Your task to perform on an android device: Show me productivity apps on the Play Store Image 0: 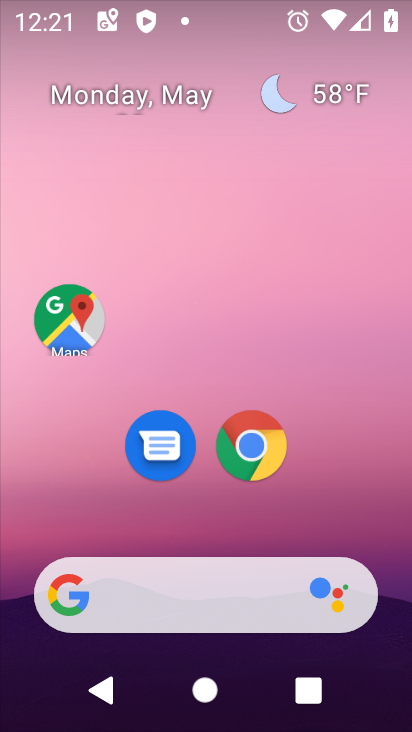
Step 0: drag from (204, 520) to (214, 69)
Your task to perform on an android device: Show me productivity apps on the Play Store Image 1: 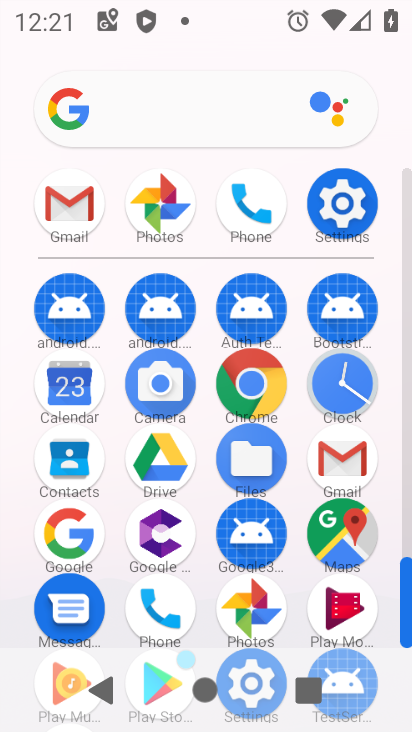
Step 1: drag from (204, 565) to (215, 172)
Your task to perform on an android device: Show me productivity apps on the Play Store Image 2: 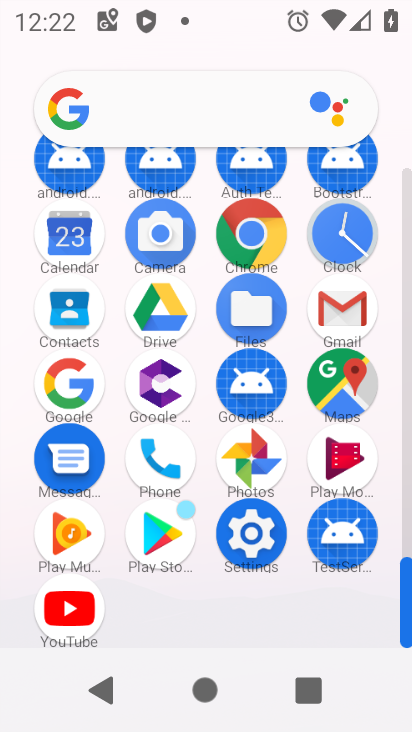
Step 2: click (154, 523)
Your task to perform on an android device: Show me productivity apps on the Play Store Image 3: 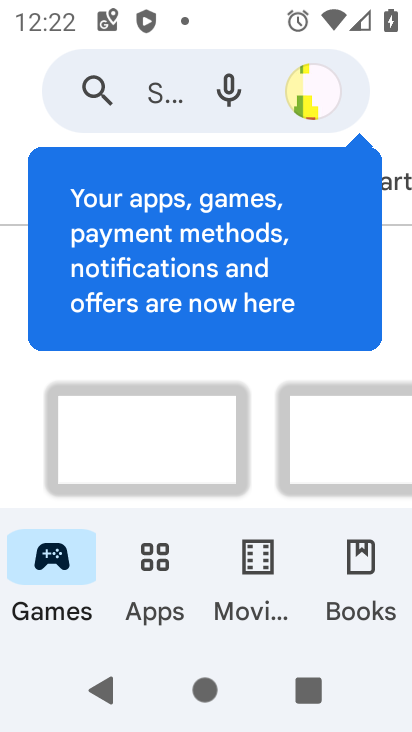
Step 3: click (153, 555)
Your task to perform on an android device: Show me productivity apps on the Play Store Image 4: 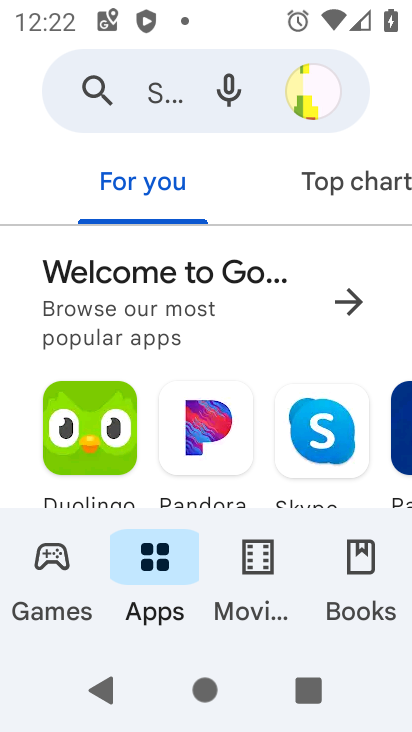
Step 4: drag from (380, 181) to (65, 204)
Your task to perform on an android device: Show me productivity apps on the Play Store Image 5: 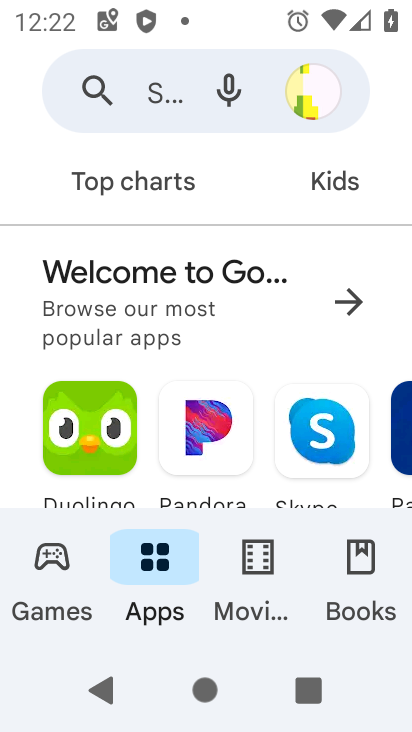
Step 5: drag from (301, 188) to (34, 203)
Your task to perform on an android device: Show me productivity apps on the Play Store Image 6: 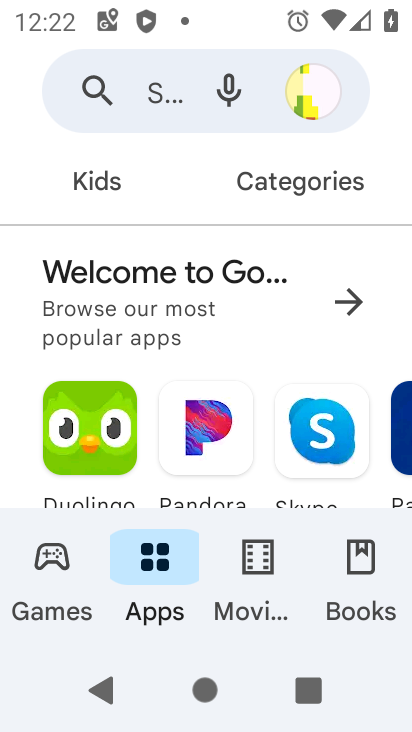
Step 6: click (299, 196)
Your task to perform on an android device: Show me productivity apps on the Play Store Image 7: 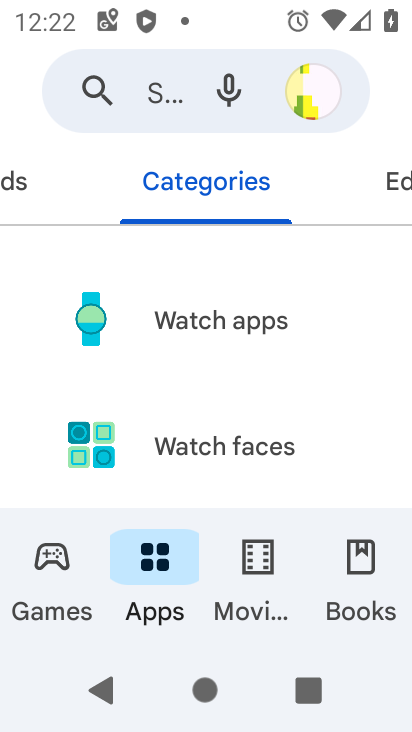
Step 7: drag from (242, 477) to (223, 142)
Your task to perform on an android device: Show me productivity apps on the Play Store Image 8: 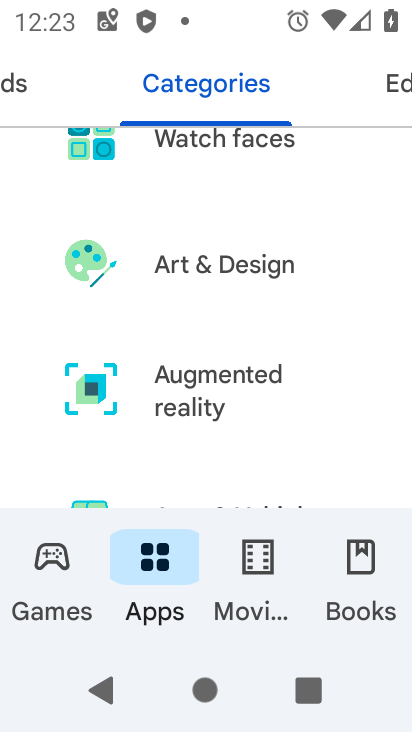
Step 8: drag from (207, 476) to (210, 64)
Your task to perform on an android device: Show me productivity apps on the Play Store Image 9: 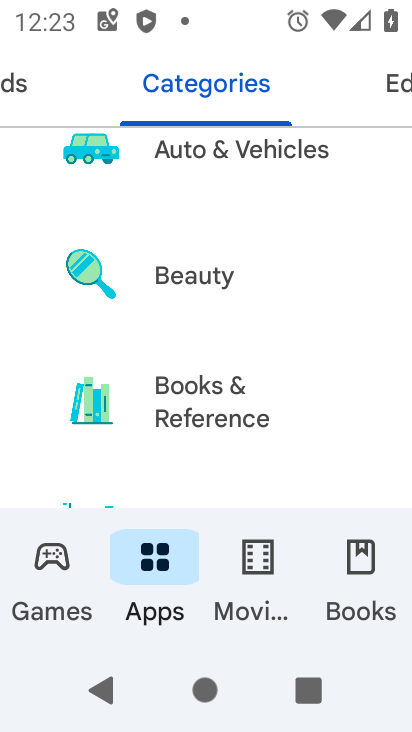
Step 9: drag from (237, 483) to (222, 62)
Your task to perform on an android device: Show me productivity apps on the Play Store Image 10: 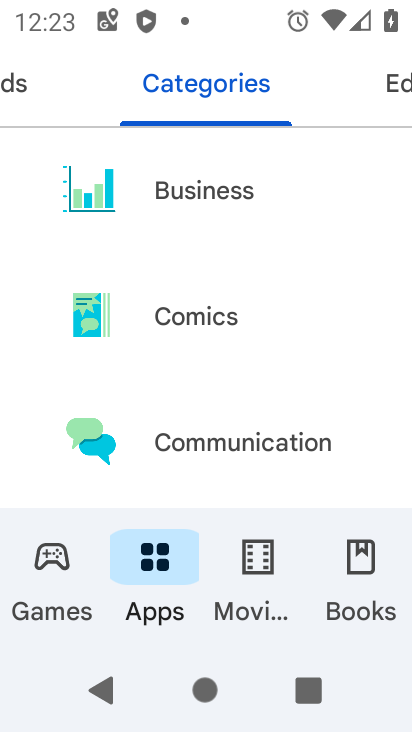
Step 10: drag from (223, 486) to (213, 94)
Your task to perform on an android device: Show me productivity apps on the Play Store Image 11: 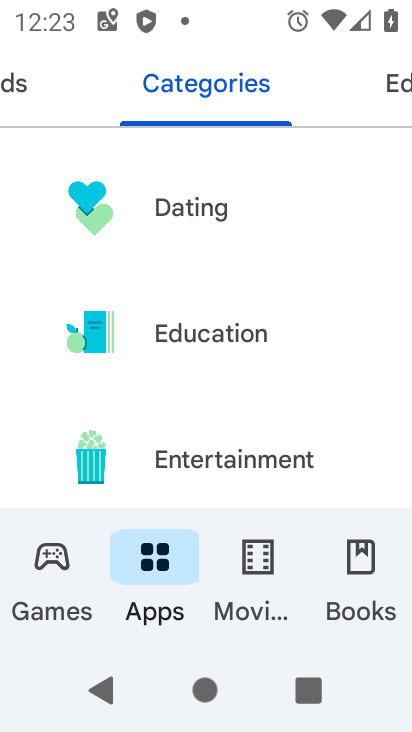
Step 11: drag from (219, 479) to (209, 95)
Your task to perform on an android device: Show me productivity apps on the Play Store Image 12: 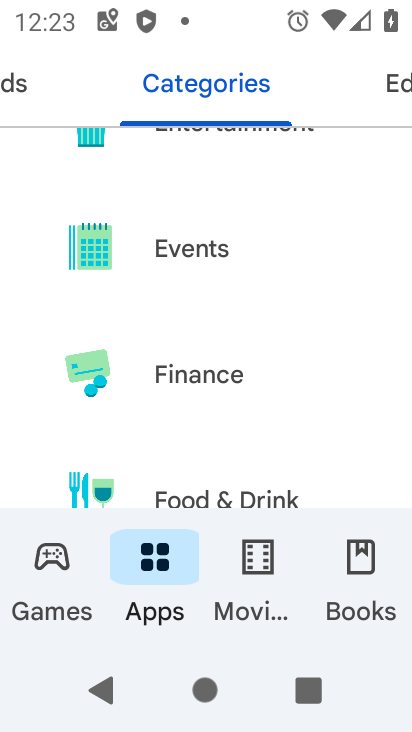
Step 12: drag from (174, 469) to (177, 72)
Your task to perform on an android device: Show me productivity apps on the Play Store Image 13: 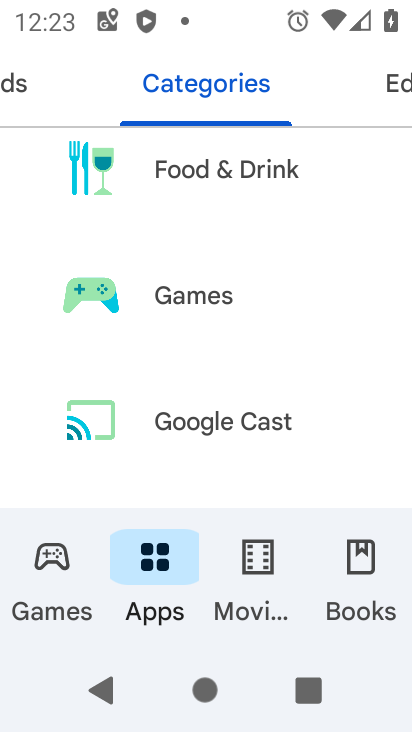
Step 13: drag from (186, 486) to (191, 71)
Your task to perform on an android device: Show me productivity apps on the Play Store Image 14: 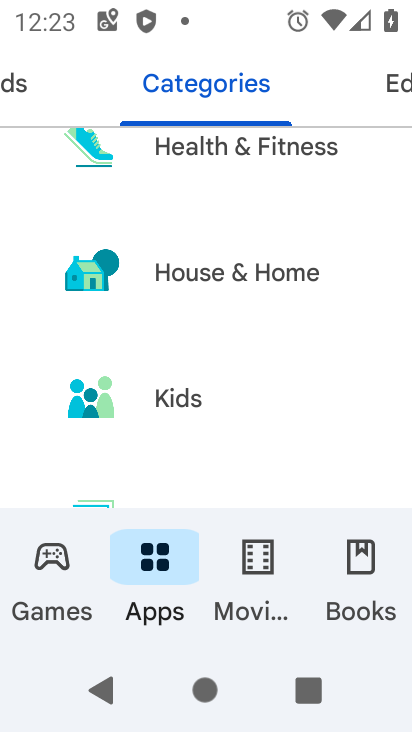
Step 14: drag from (194, 476) to (206, 57)
Your task to perform on an android device: Show me productivity apps on the Play Store Image 15: 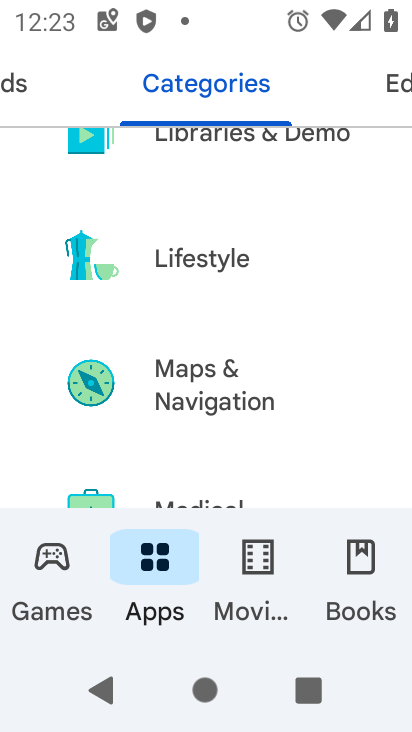
Step 15: drag from (190, 481) to (201, 23)
Your task to perform on an android device: Show me productivity apps on the Play Store Image 16: 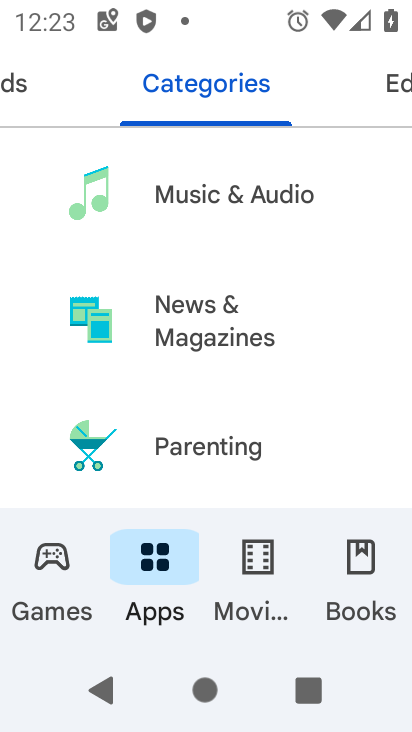
Step 16: drag from (201, 487) to (196, 63)
Your task to perform on an android device: Show me productivity apps on the Play Store Image 17: 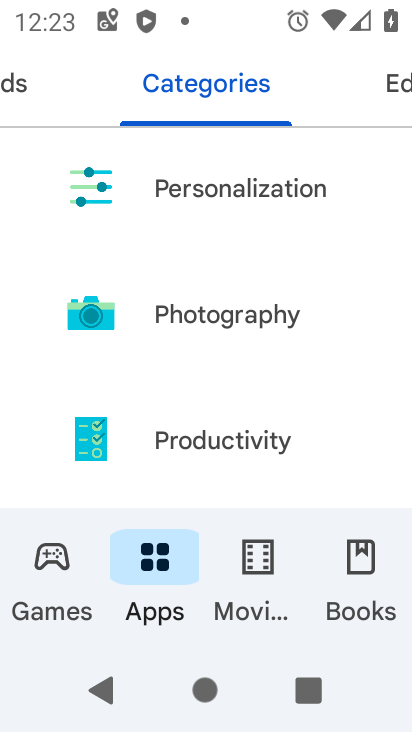
Step 17: click (131, 431)
Your task to perform on an android device: Show me productivity apps on the Play Store Image 18: 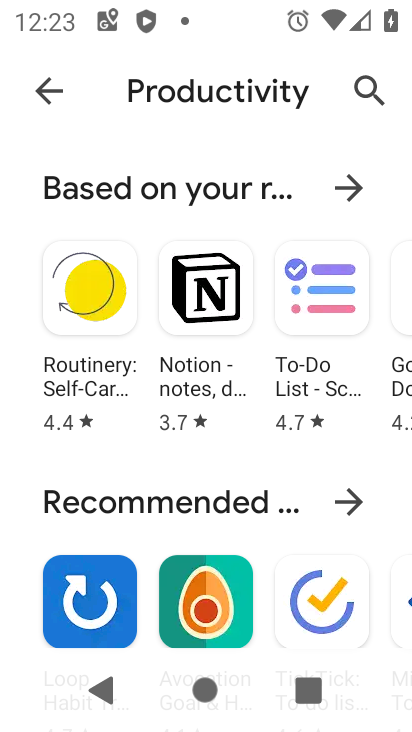
Step 18: task complete